Your task to perform on an android device: Go to Android settings Image 0: 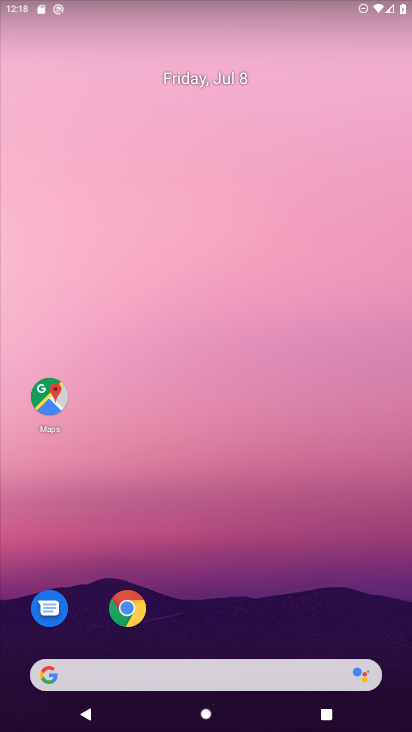
Step 0: drag from (230, 659) to (230, 555)
Your task to perform on an android device: Go to Android settings Image 1: 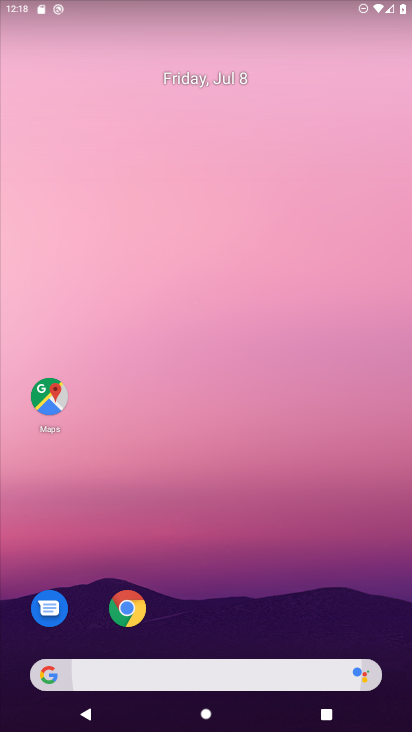
Step 1: drag from (219, 218) to (216, 80)
Your task to perform on an android device: Go to Android settings Image 2: 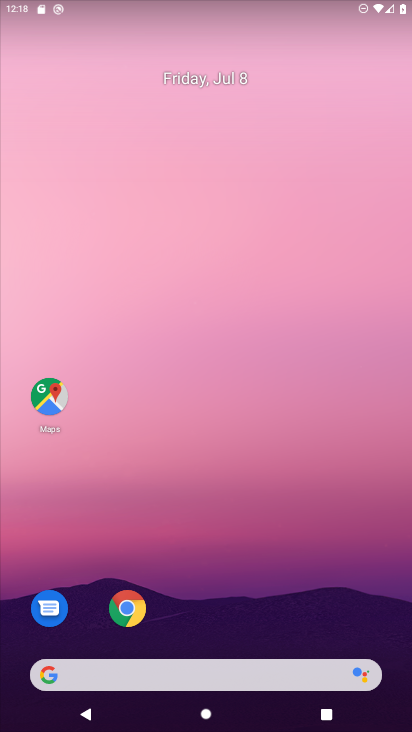
Step 2: drag from (235, 723) to (229, 621)
Your task to perform on an android device: Go to Android settings Image 3: 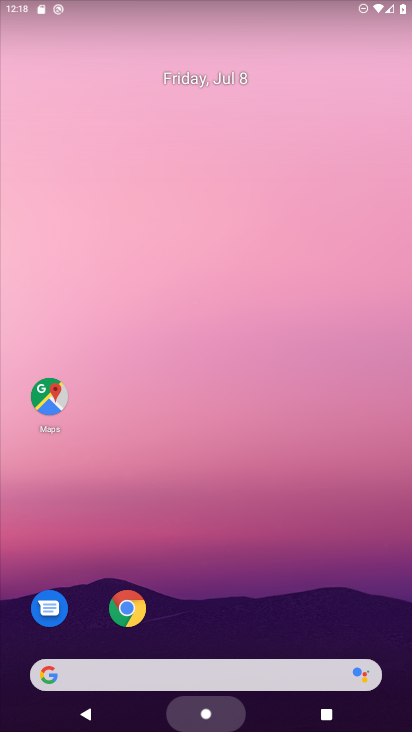
Step 3: drag from (227, 166) to (227, 39)
Your task to perform on an android device: Go to Android settings Image 4: 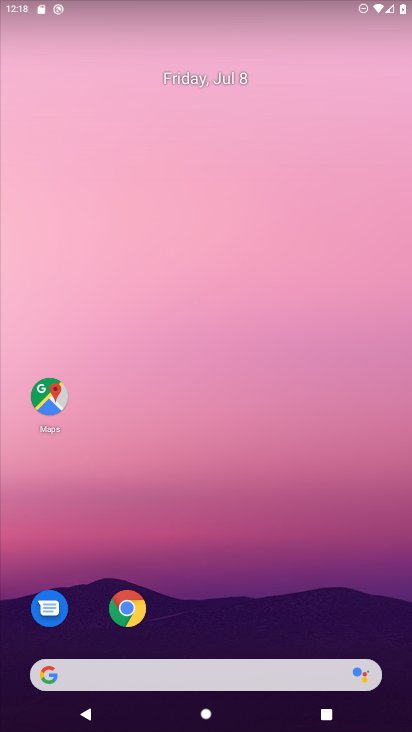
Step 4: drag from (258, 728) to (258, 620)
Your task to perform on an android device: Go to Android settings Image 5: 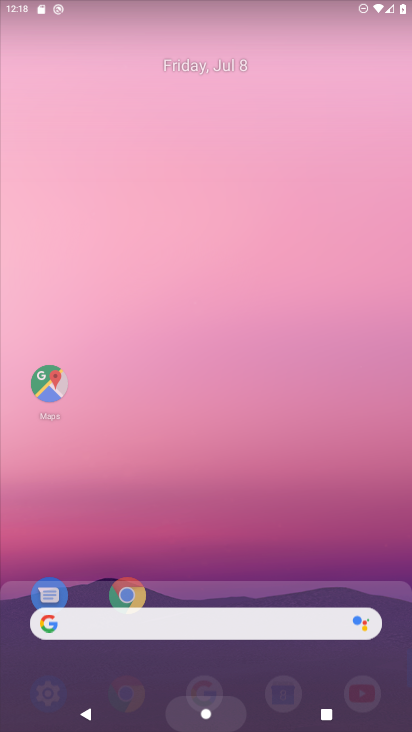
Step 5: click (258, 56)
Your task to perform on an android device: Go to Android settings Image 6: 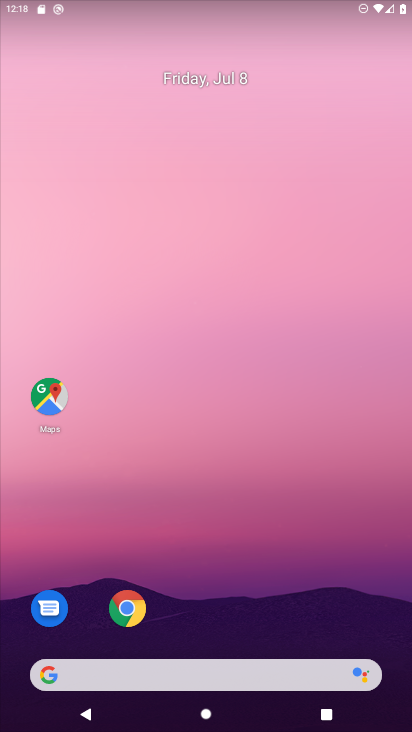
Step 6: drag from (265, 722) to (248, 23)
Your task to perform on an android device: Go to Android settings Image 7: 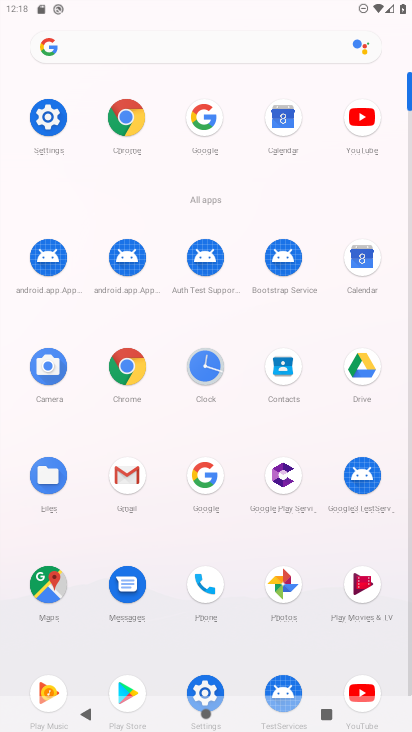
Step 7: click (44, 115)
Your task to perform on an android device: Go to Android settings Image 8: 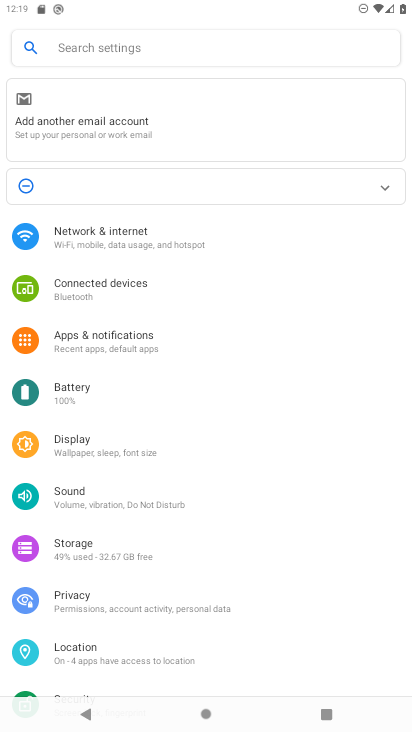
Step 8: task complete